Your task to perform on an android device: Open the Play Movies app and select the watchlist tab. Image 0: 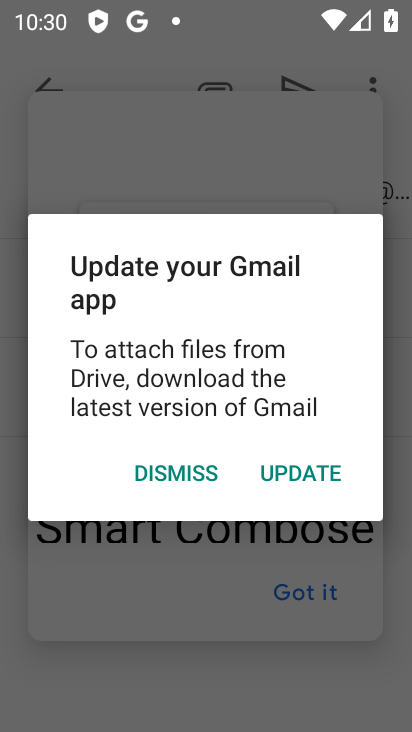
Step 0: press home button
Your task to perform on an android device: Open the Play Movies app and select the watchlist tab. Image 1: 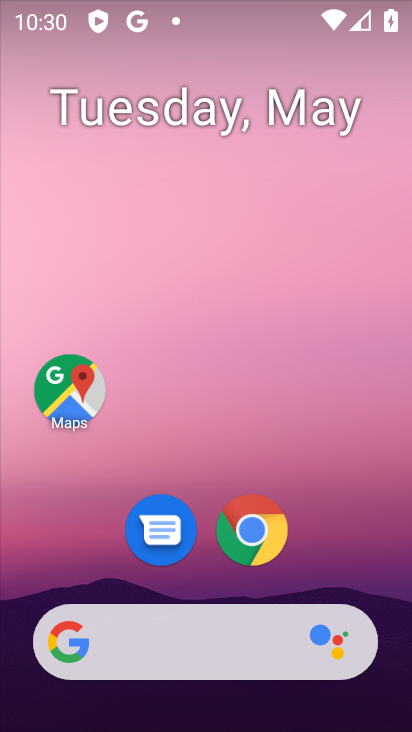
Step 1: drag from (322, 338) to (331, 149)
Your task to perform on an android device: Open the Play Movies app and select the watchlist tab. Image 2: 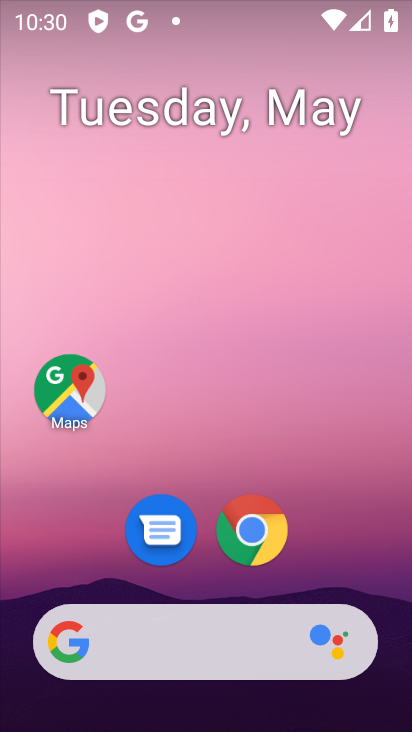
Step 2: drag from (372, 531) to (402, 157)
Your task to perform on an android device: Open the Play Movies app and select the watchlist tab. Image 3: 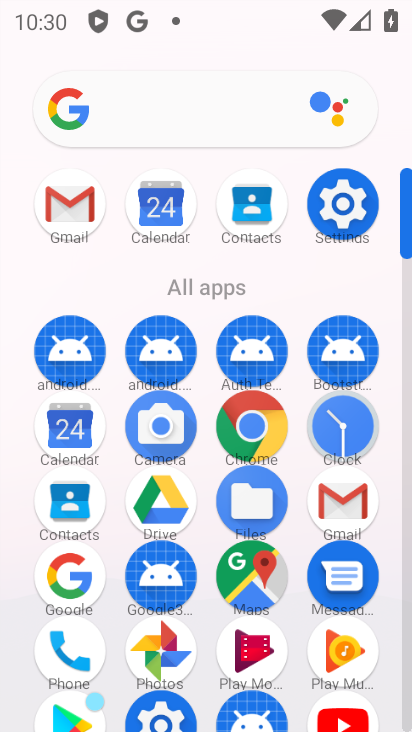
Step 3: click (263, 648)
Your task to perform on an android device: Open the Play Movies app and select the watchlist tab. Image 4: 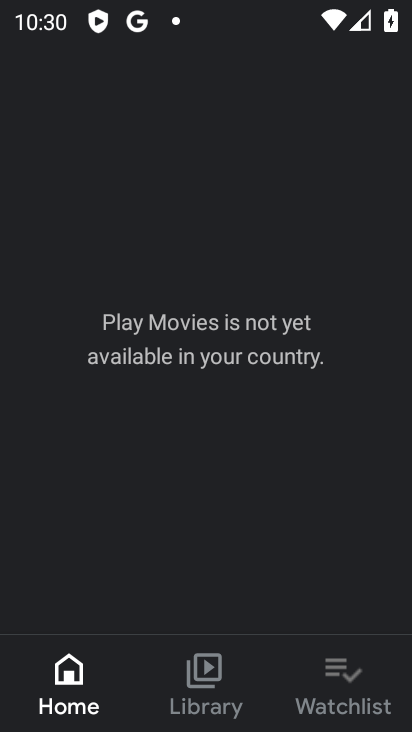
Step 4: click (340, 694)
Your task to perform on an android device: Open the Play Movies app and select the watchlist tab. Image 5: 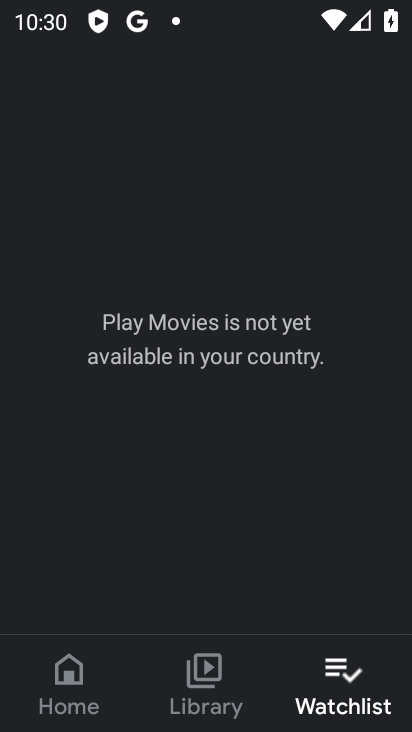
Step 5: task complete